Your task to perform on an android device: Open Chrome and go to the settings page Image 0: 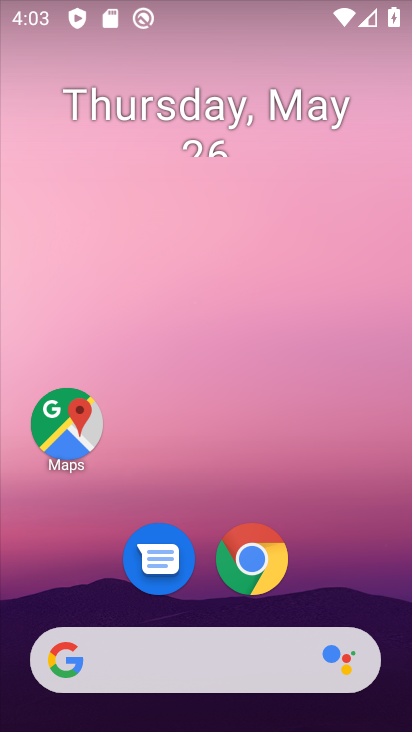
Step 0: click (254, 577)
Your task to perform on an android device: Open Chrome and go to the settings page Image 1: 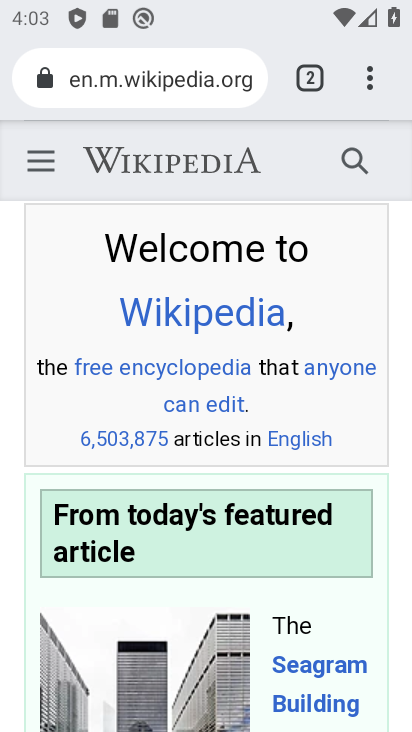
Step 1: click (366, 75)
Your task to perform on an android device: Open Chrome and go to the settings page Image 2: 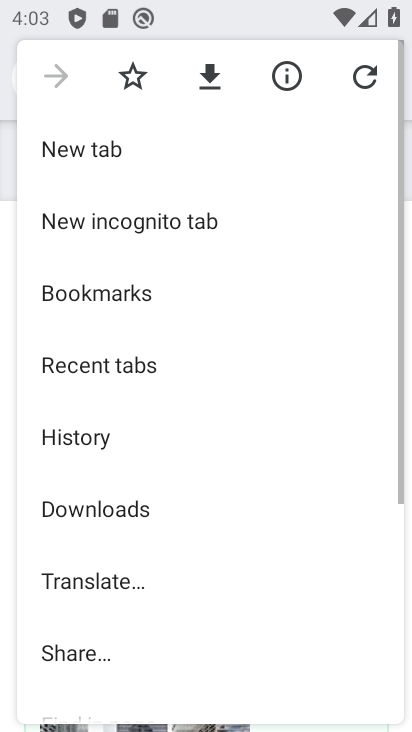
Step 2: drag from (219, 626) to (226, 54)
Your task to perform on an android device: Open Chrome and go to the settings page Image 3: 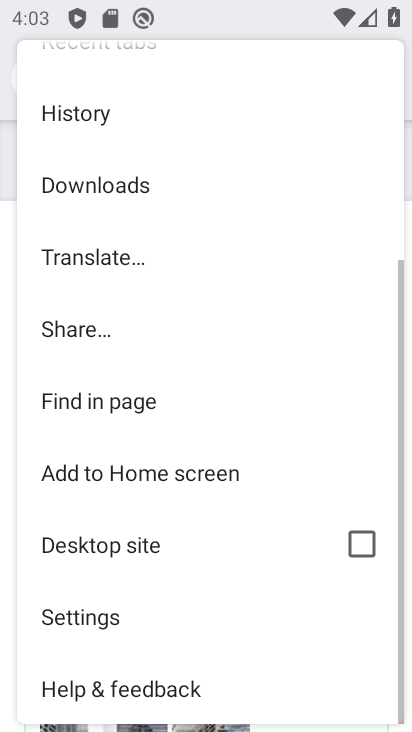
Step 3: click (143, 615)
Your task to perform on an android device: Open Chrome and go to the settings page Image 4: 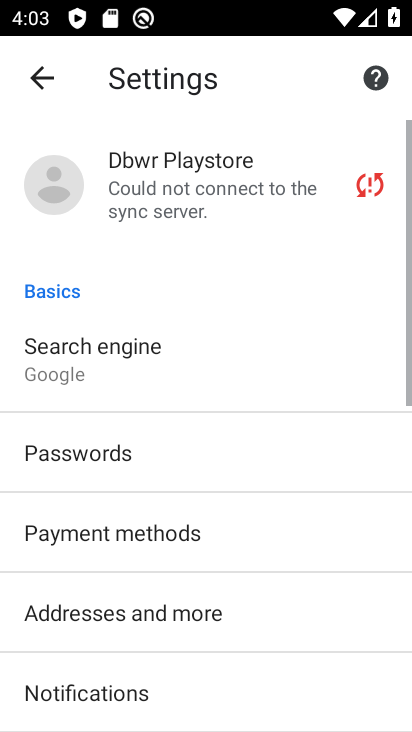
Step 4: task complete